Your task to perform on an android device: Go to location settings Image 0: 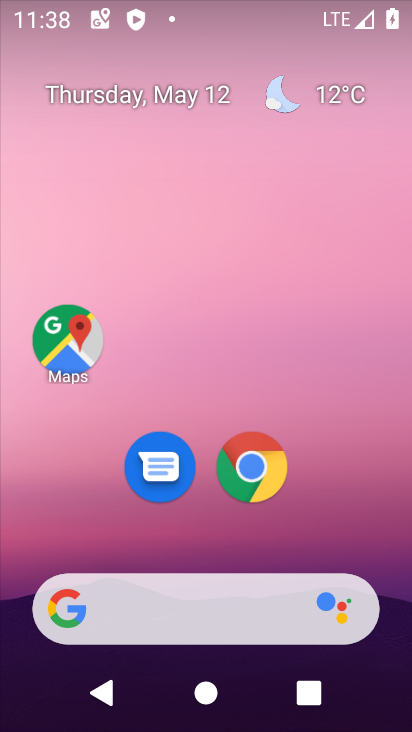
Step 0: drag from (372, 516) to (239, 10)
Your task to perform on an android device: Go to location settings Image 1: 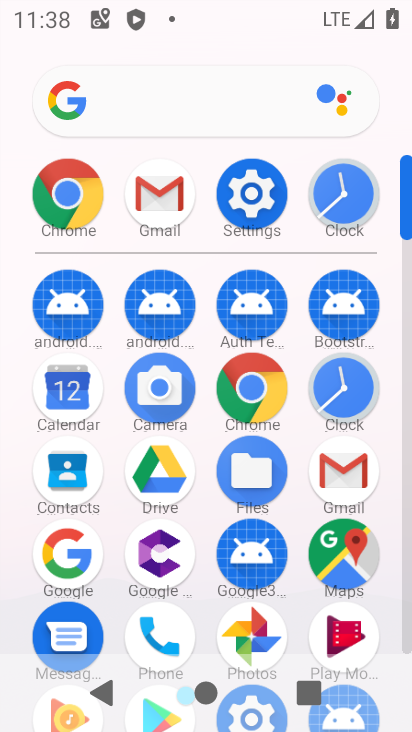
Step 1: drag from (4, 510) to (3, 191)
Your task to perform on an android device: Go to location settings Image 2: 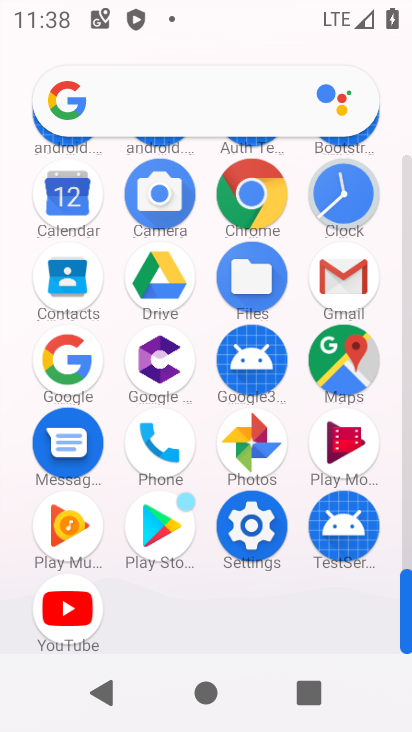
Step 2: click (252, 526)
Your task to perform on an android device: Go to location settings Image 3: 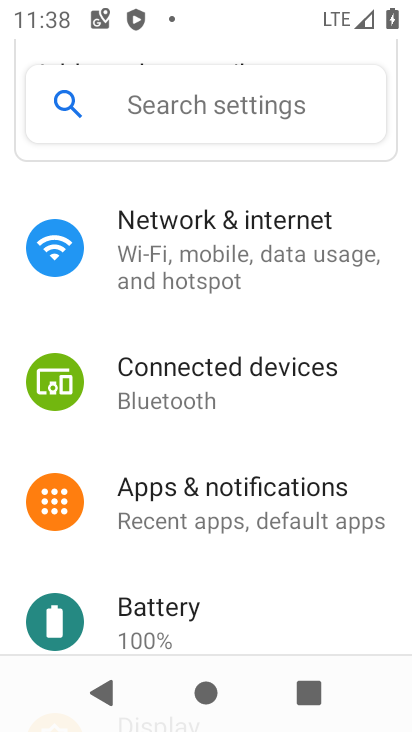
Step 3: drag from (282, 530) to (268, 222)
Your task to perform on an android device: Go to location settings Image 4: 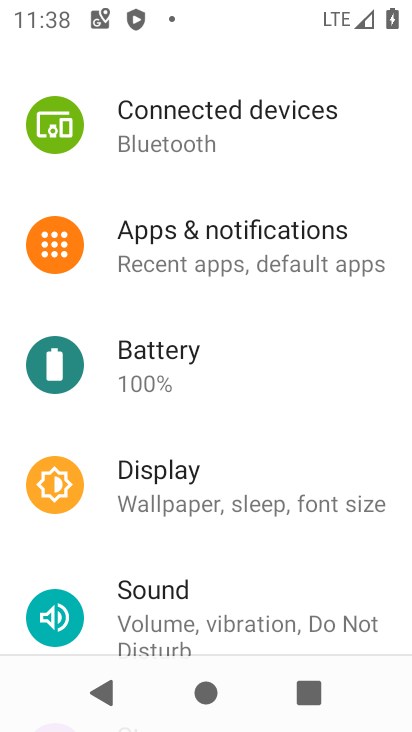
Step 4: drag from (211, 572) to (220, 194)
Your task to perform on an android device: Go to location settings Image 5: 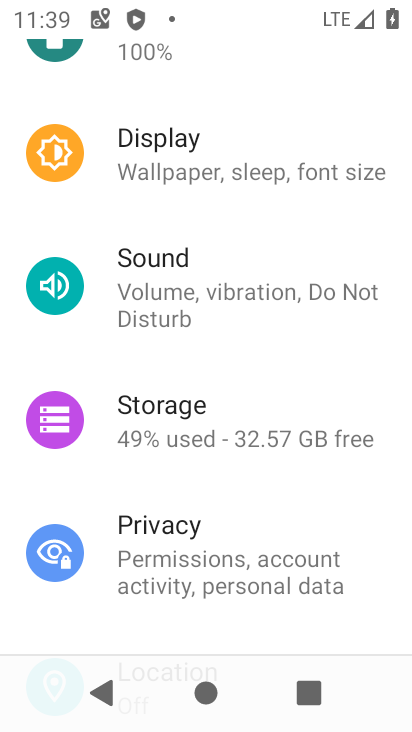
Step 5: drag from (232, 562) to (211, 253)
Your task to perform on an android device: Go to location settings Image 6: 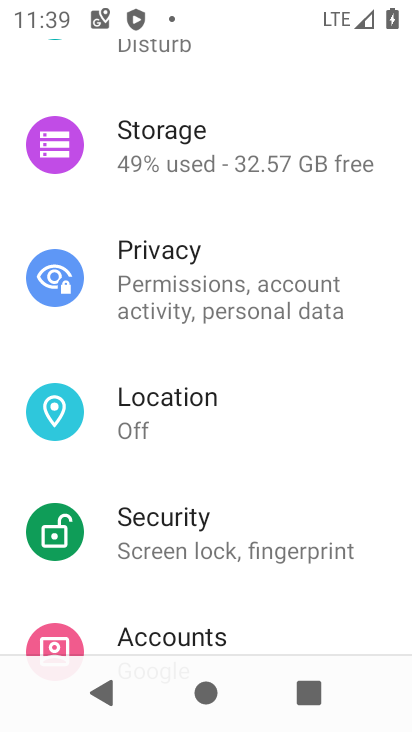
Step 6: click (170, 412)
Your task to perform on an android device: Go to location settings Image 7: 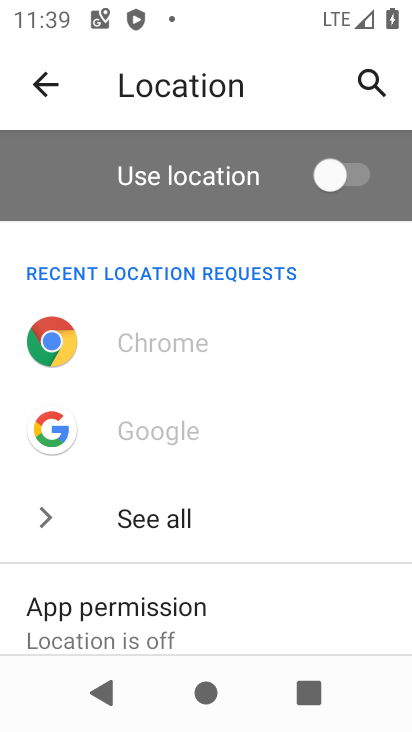
Step 7: task complete